Your task to perform on an android device: open a new tab in the chrome app Image 0: 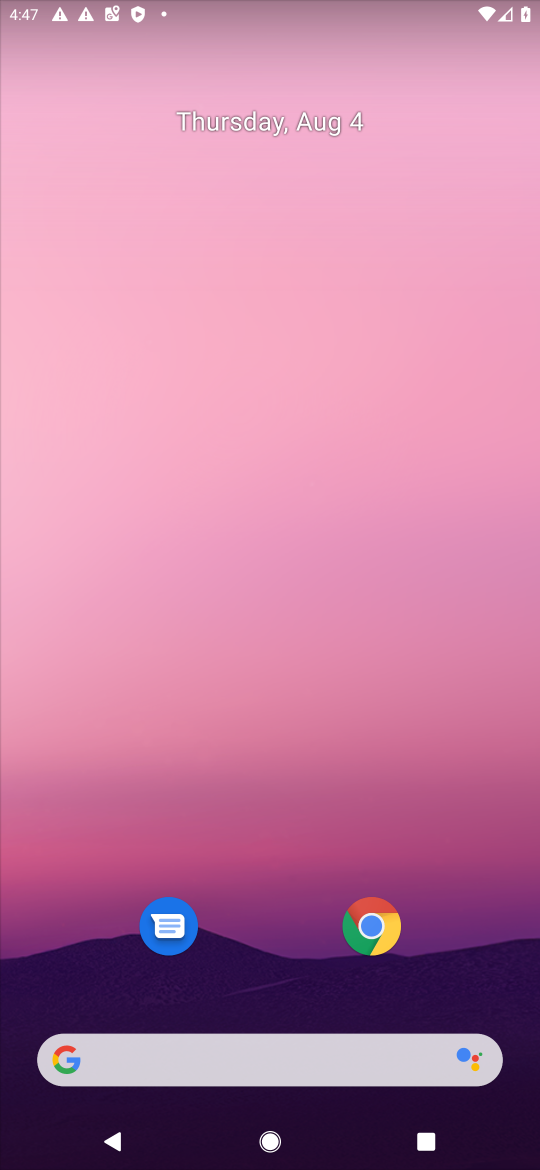
Step 0: press home button
Your task to perform on an android device: open a new tab in the chrome app Image 1: 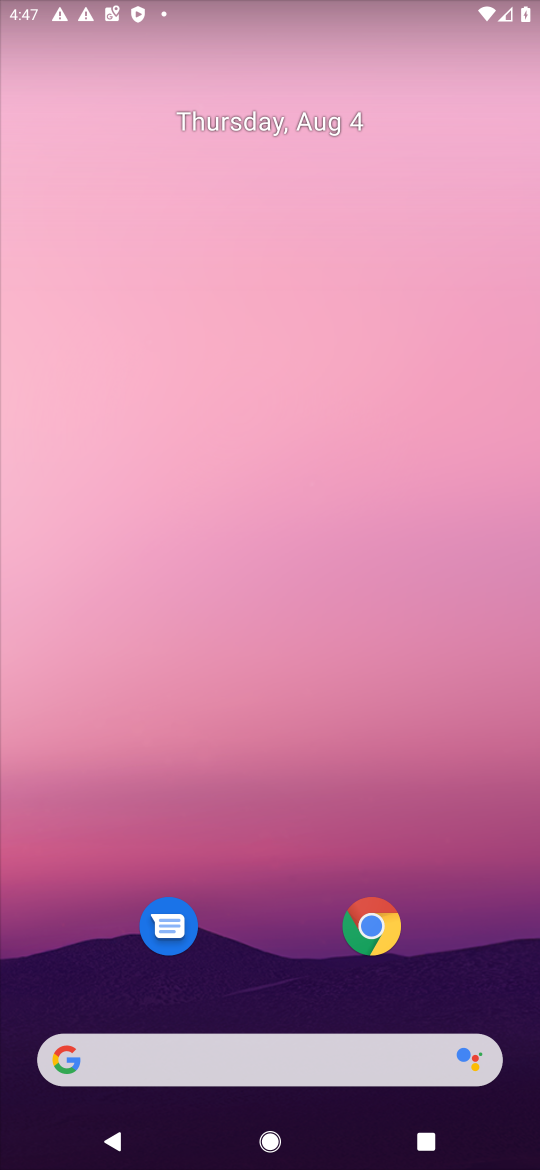
Step 1: click (371, 920)
Your task to perform on an android device: open a new tab in the chrome app Image 2: 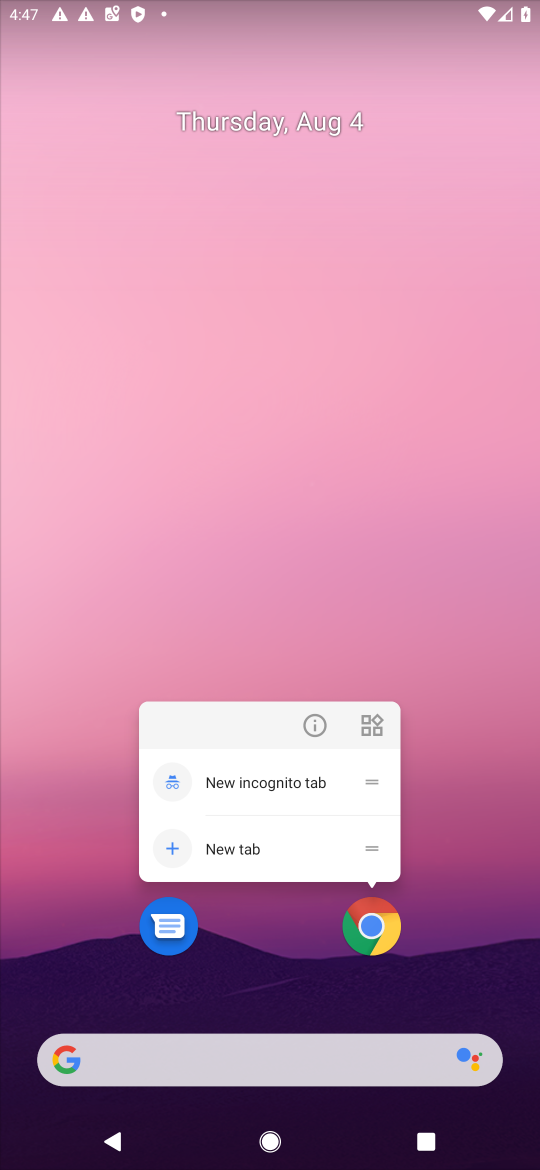
Step 2: click (373, 935)
Your task to perform on an android device: open a new tab in the chrome app Image 3: 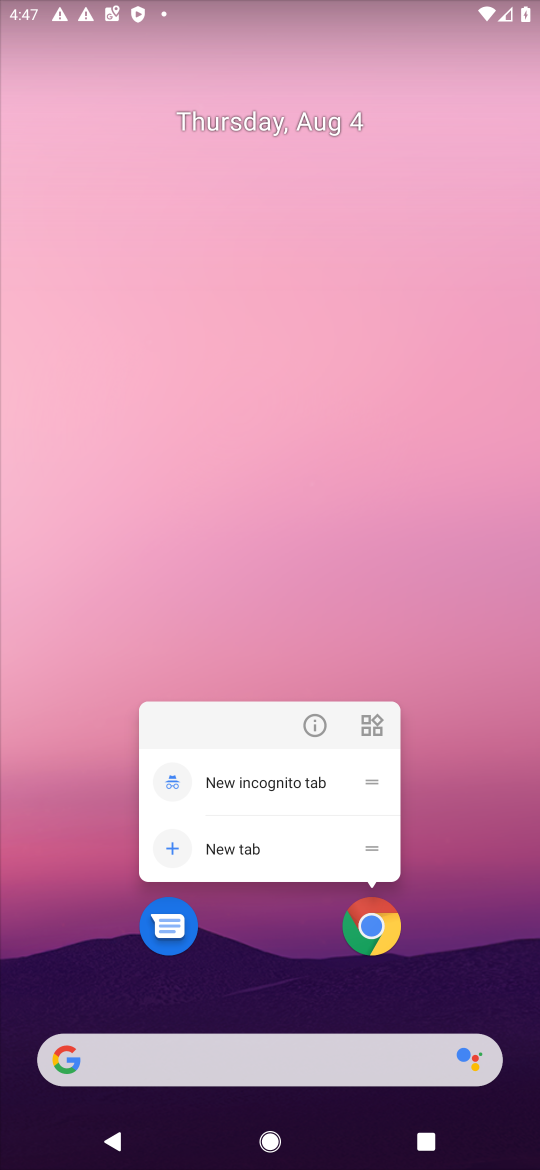
Step 3: click (348, 951)
Your task to perform on an android device: open a new tab in the chrome app Image 4: 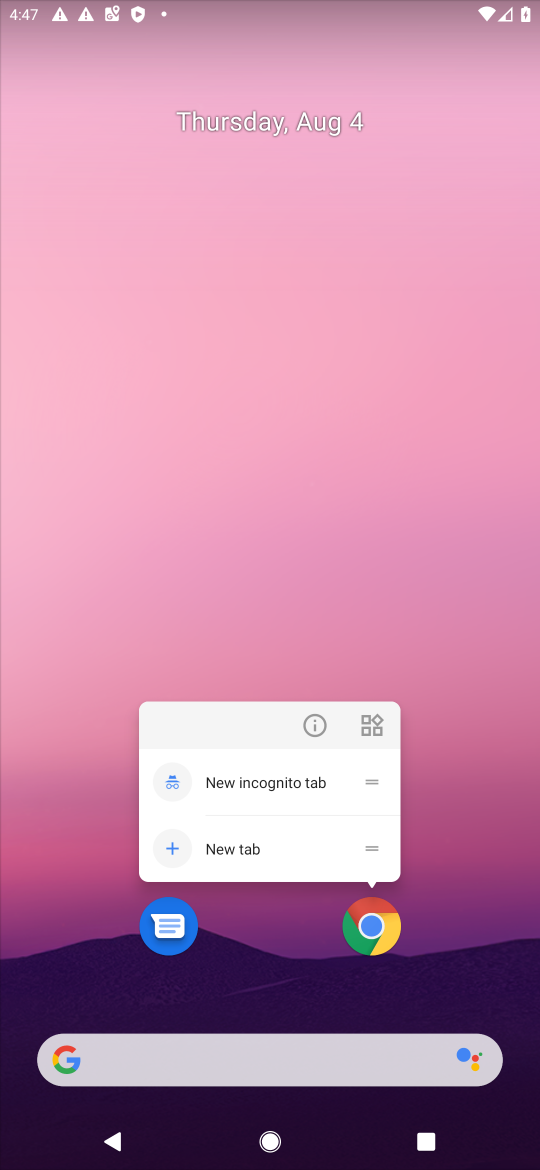
Step 4: click (378, 932)
Your task to perform on an android device: open a new tab in the chrome app Image 5: 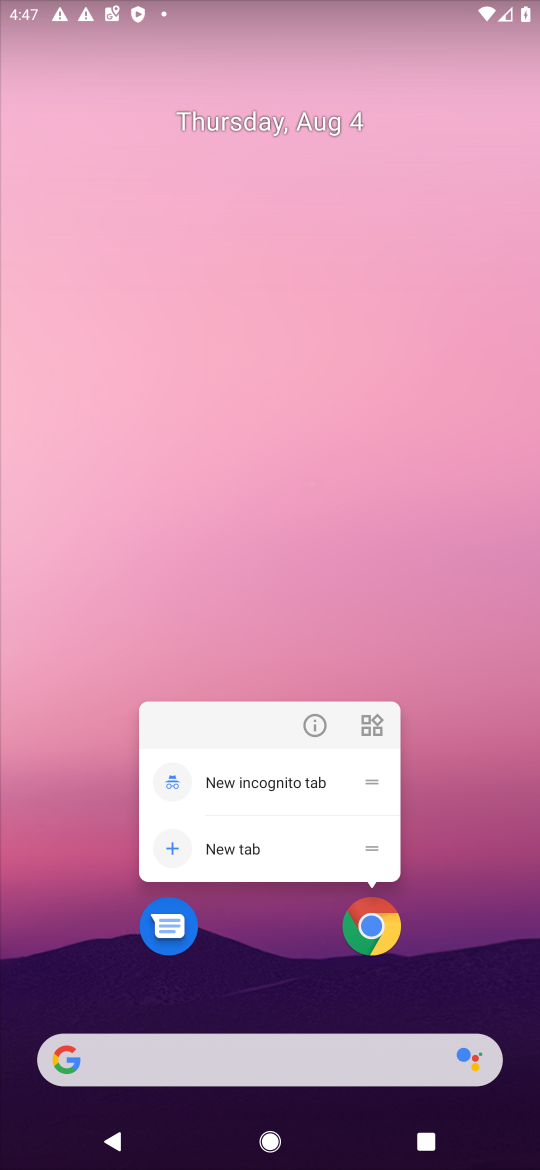
Step 5: click (378, 932)
Your task to perform on an android device: open a new tab in the chrome app Image 6: 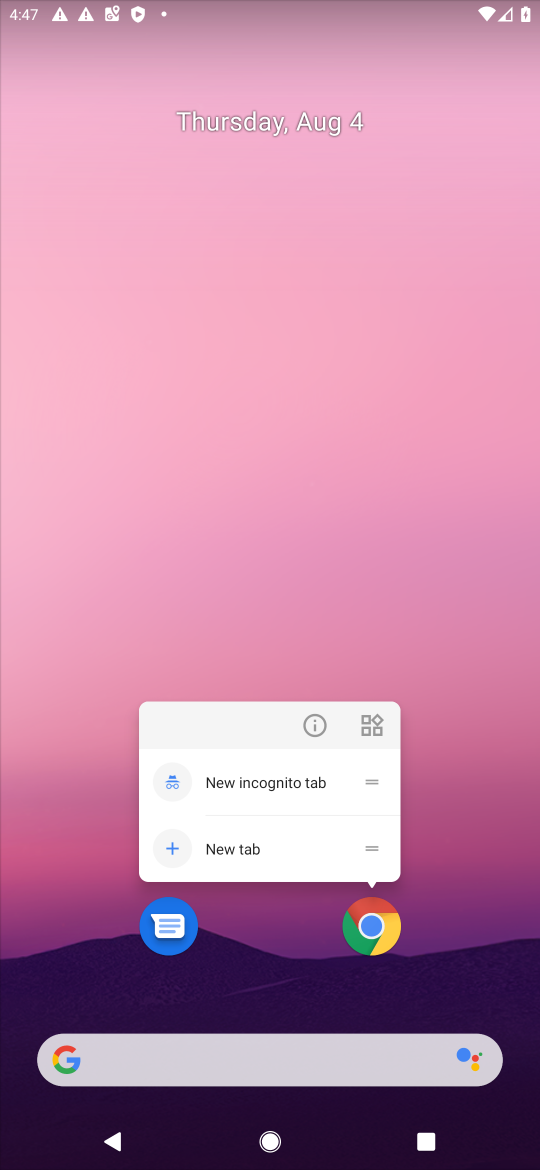
Step 6: click (378, 932)
Your task to perform on an android device: open a new tab in the chrome app Image 7: 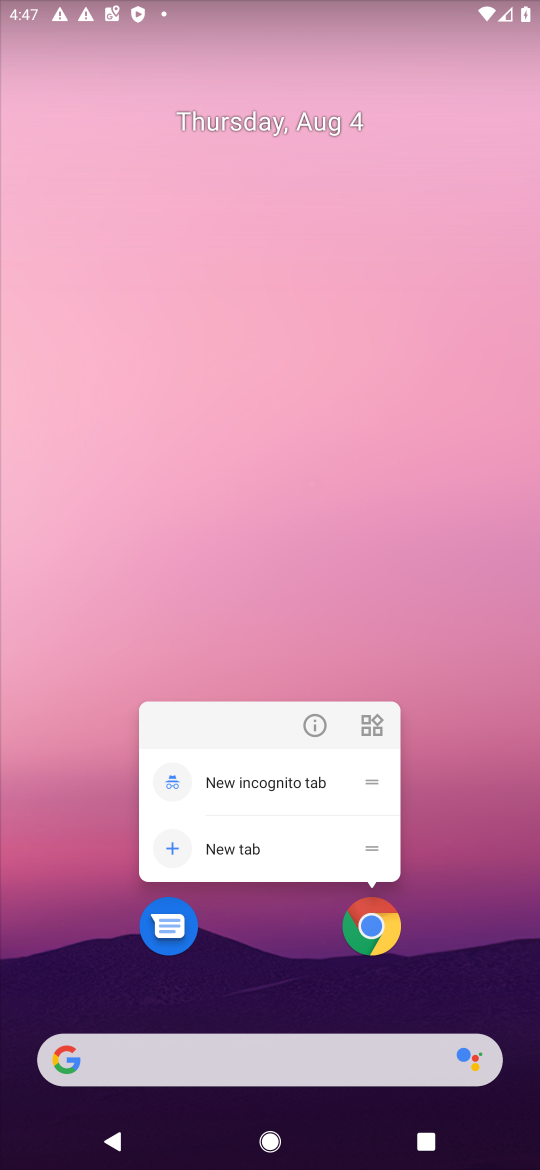
Step 7: click (250, 982)
Your task to perform on an android device: open a new tab in the chrome app Image 8: 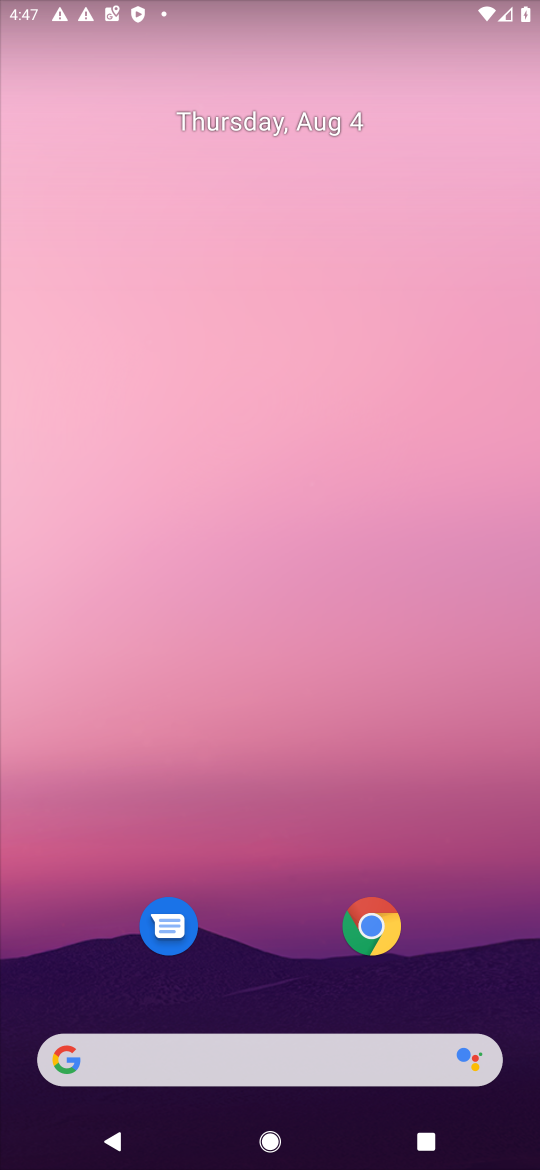
Step 8: drag from (254, 979) to (439, 154)
Your task to perform on an android device: open a new tab in the chrome app Image 9: 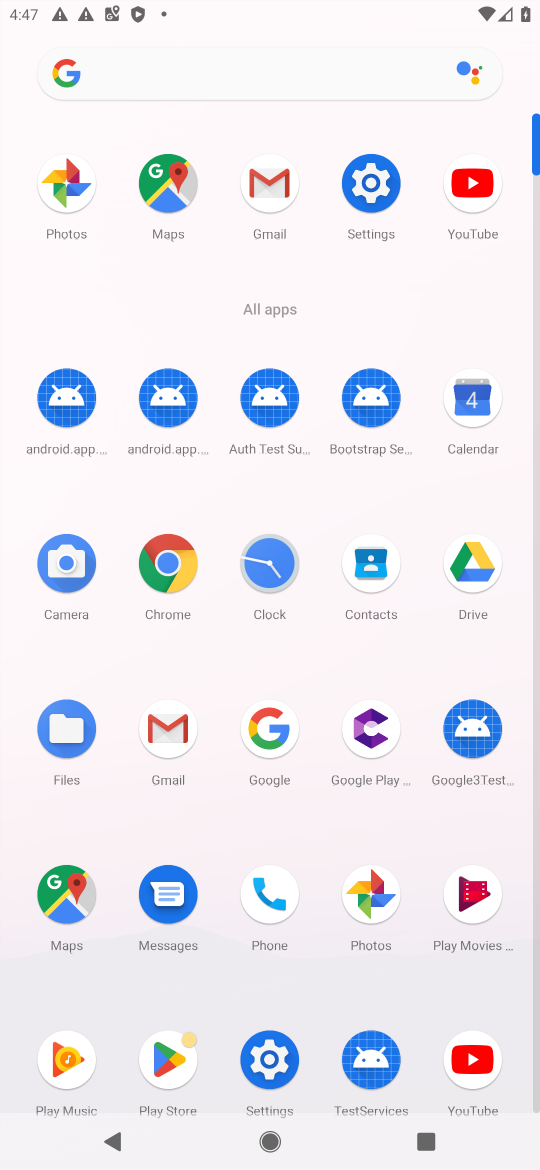
Step 9: click (159, 578)
Your task to perform on an android device: open a new tab in the chrome app Image 10: 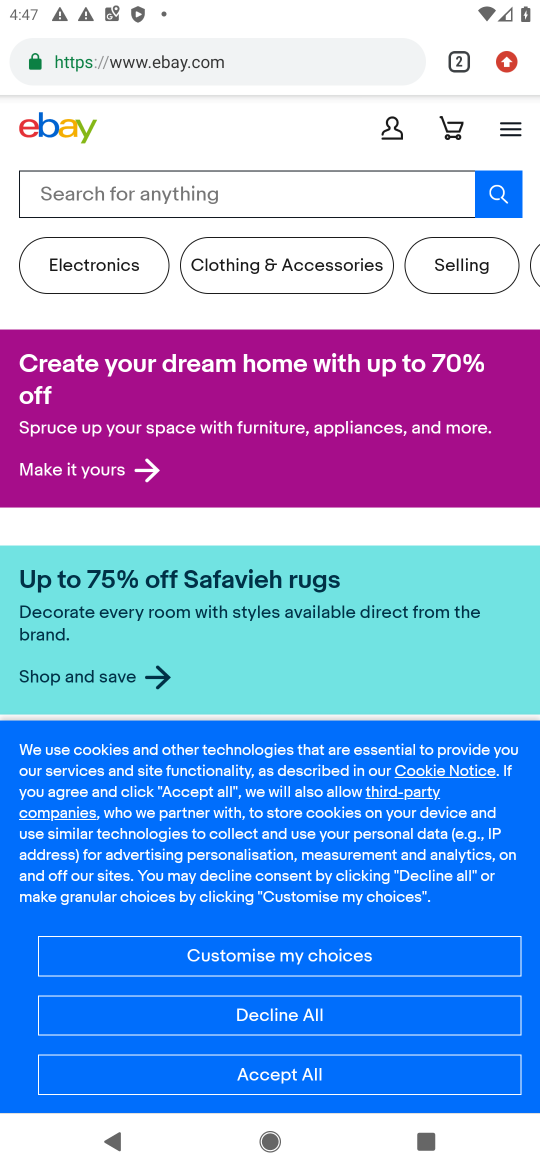
Step 10: click (467, 64)
Your task to perform on an android device: open a new tab in the chrome app Image 11: 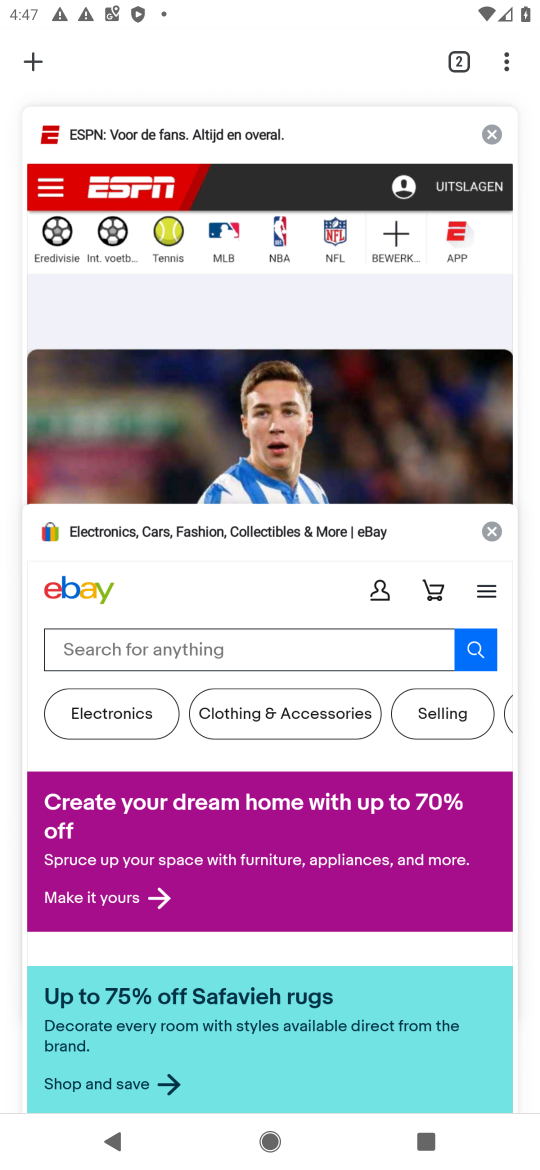
Step 11: click (38, 65)
Your task to perform on an android device: open a new tab in the chrome app Image 12: 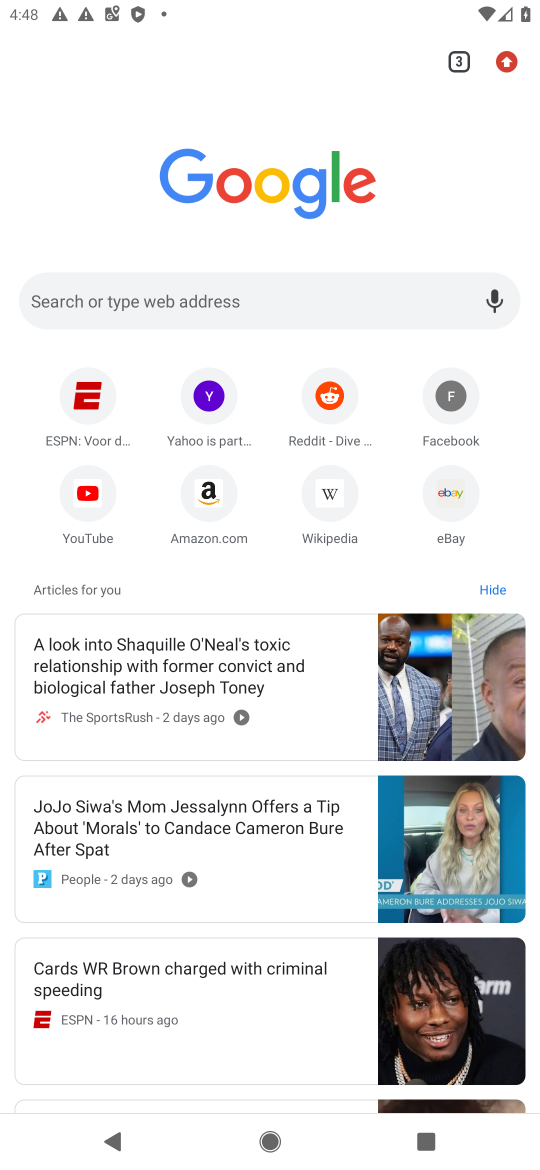
Step 12: task complete